Your task to perform on an android device: change text size in settings app Image 0: 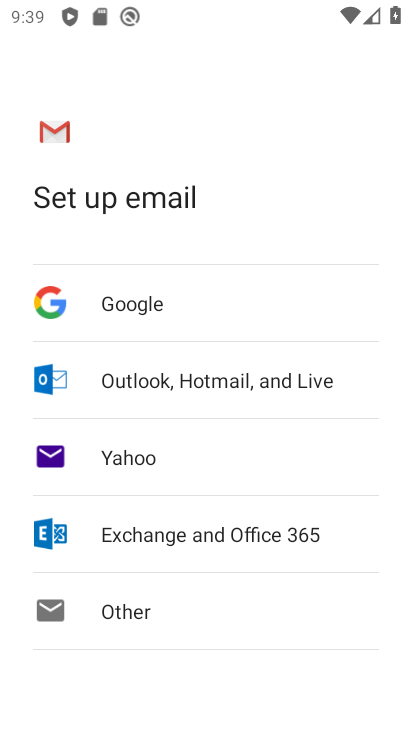
Step 0: press home button
Your task to perform on an android device: change text size in settings app Image 1: 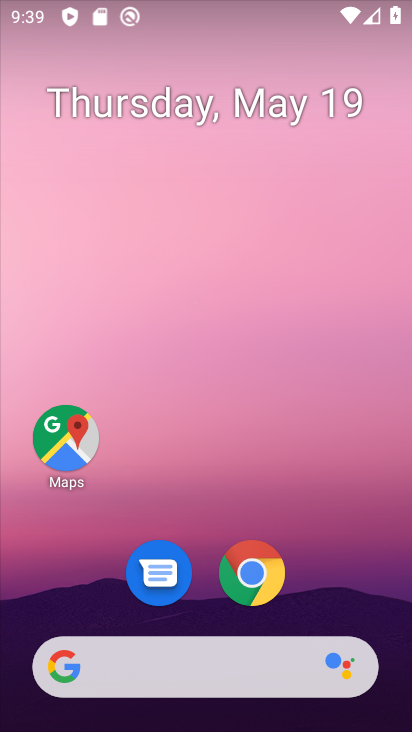
Step 1: drag from (201, 622) to (208, 165)
Your task to perform on an android device: change text size in settings app Image 2: 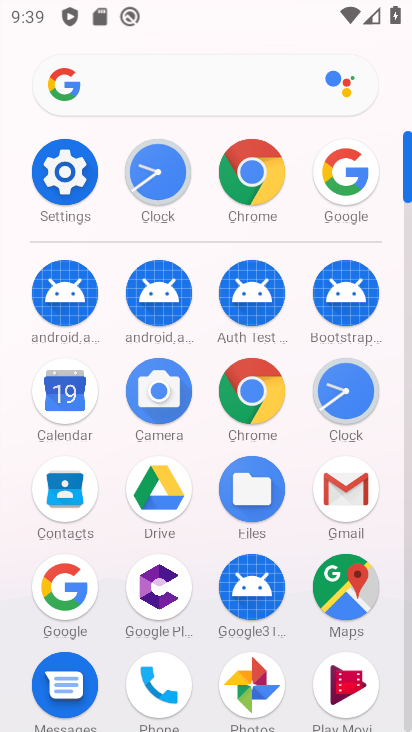
Step 2: click (54, 179)
Your task to perform on an android device: change text size in settings app Image 3: 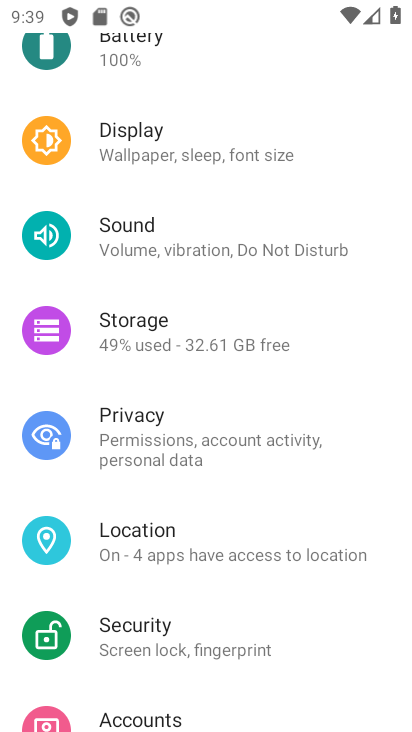
Step 3: click (160, 155)
Your task to perform on an android device: change text size in settings app Image 4: 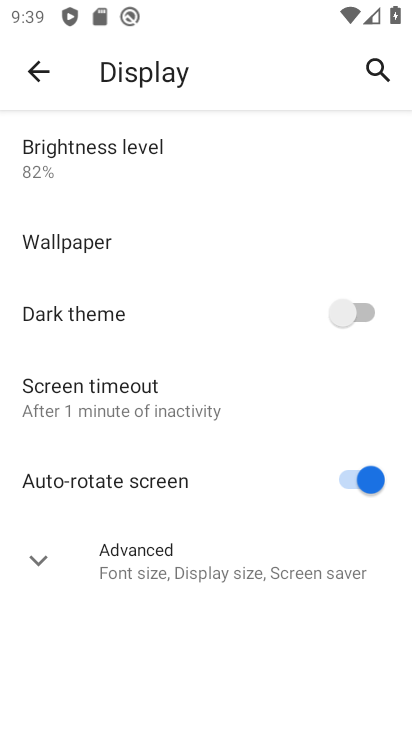
Step 4: click (145, 554)
Your task to perform on an android device: change text size in settings app Image 5: 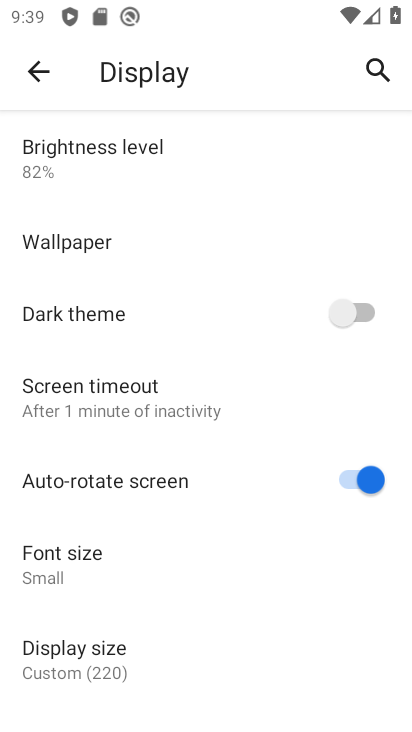
Step 5: click (145, 554)
Your task to perform on an android device: change text size in settings app Image 6: 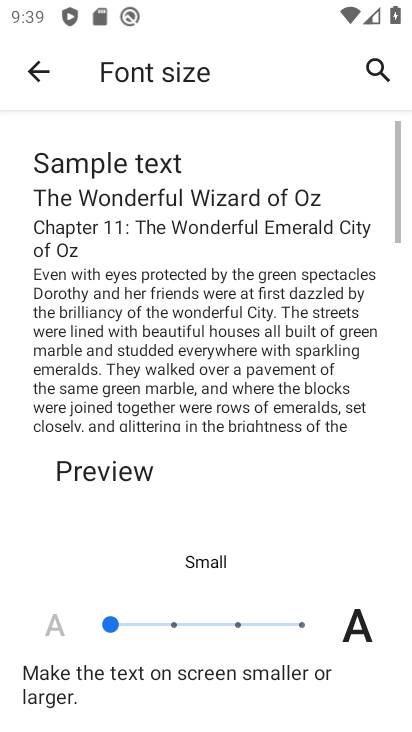
Step 6: click (171, 613)
Your task to perform on an android device: change text size in settings app Image 7: 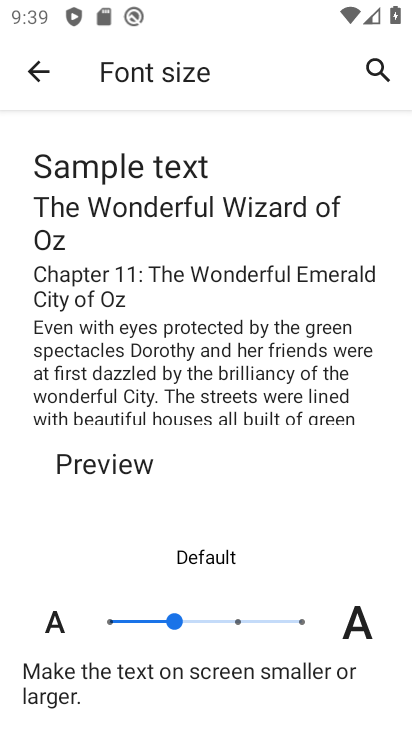
Step 7: task complete